Your task to perform on an android device: Open display settings Image 0: 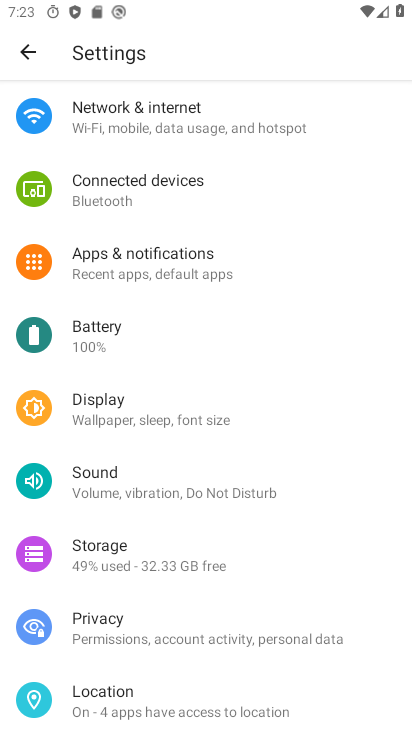
Step 0: drag from (228, 617) to (231, 248)
Your task to perform on an android device: Open display settings Image 1: 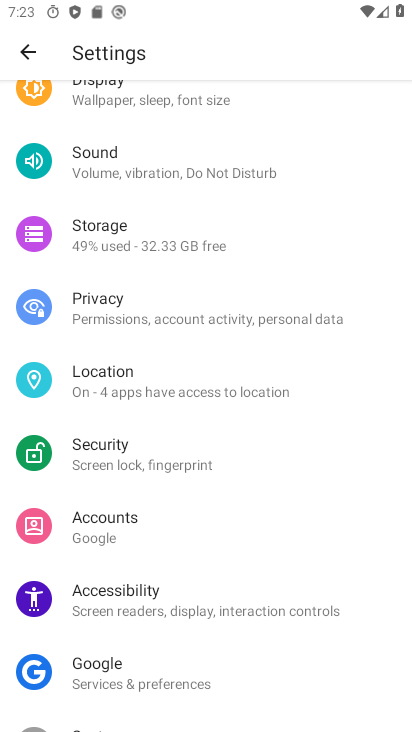
Step 1: click (159, 91)
Your task to perform on an android device: Open display settings Image 2: 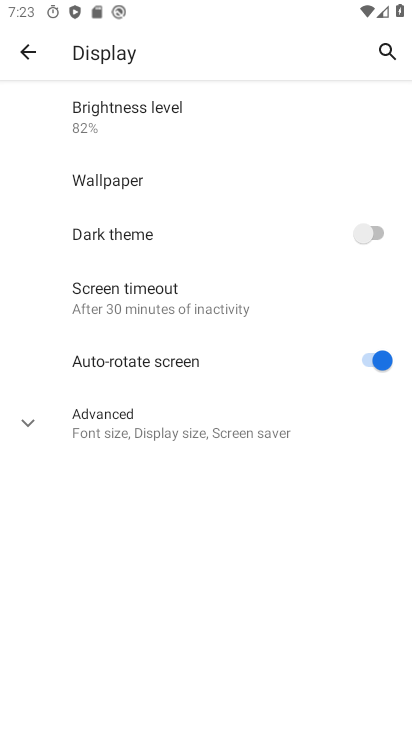
Step 2: task complete